Your task to perform on an android device: turn off data saver in the chrome app Image 0: 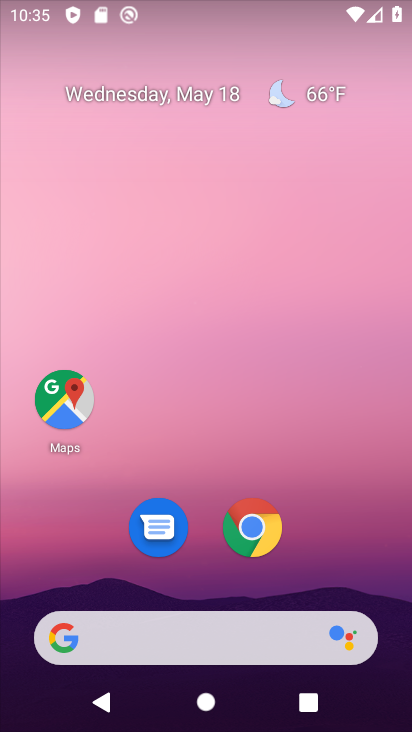
Step 0: drag from (343, 582) to (281, 262)
Your task to perform on an android device: turn off data saver in the chrome app Image 1: 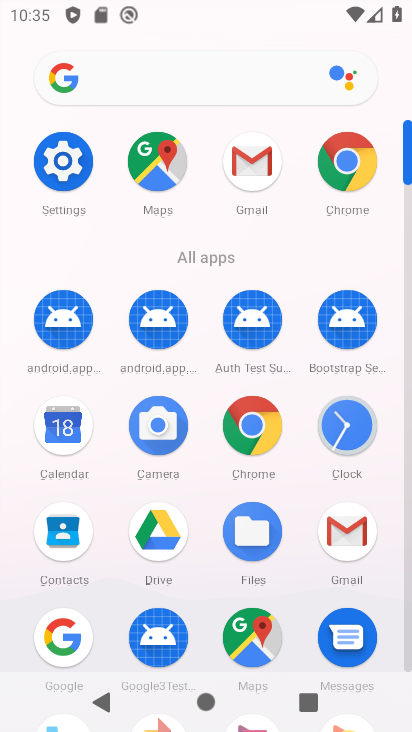
Step 1: click (365, 170)
Your task to perform on an android device: turn off data saver in the chrome app Image 2: 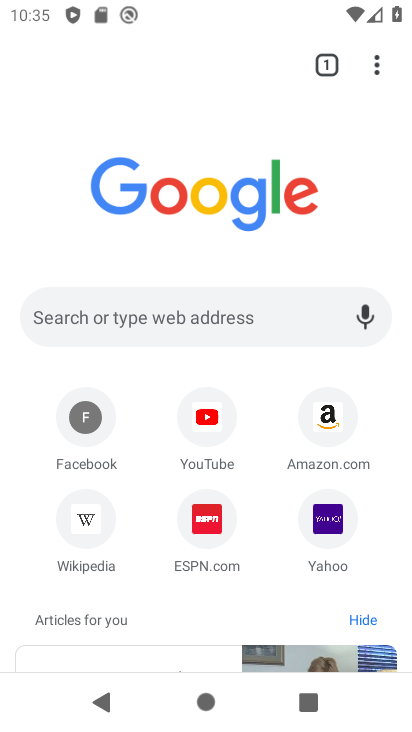
Step 2: click (377, 51)
Your task to perform on an android device: turn off data saver in the chrome app Image 3: 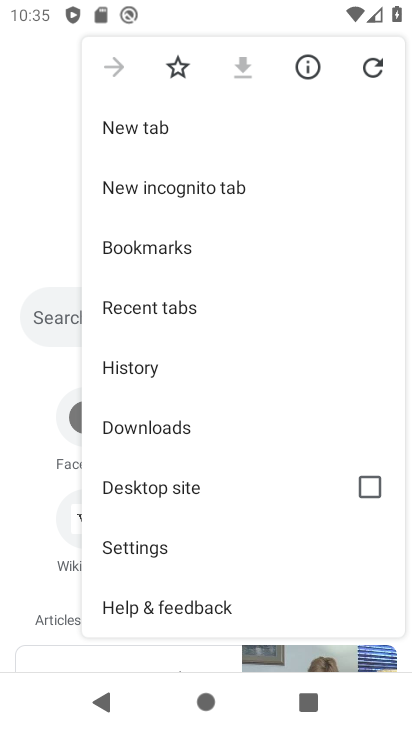
Step 3: click (265, 545)
Your task to perform on an android device: turn off data saver in the chrome app Image 4: 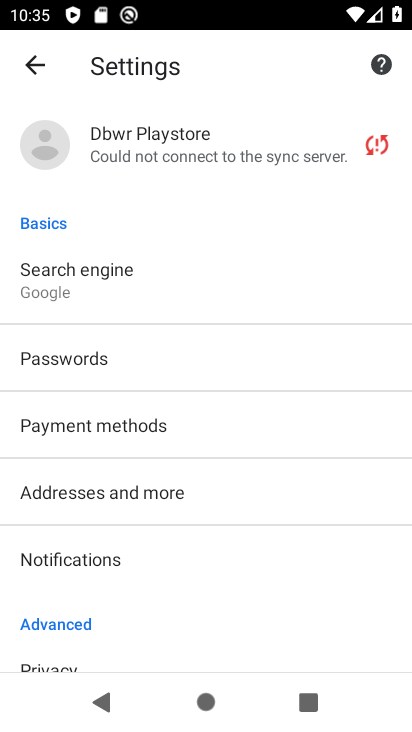
Step 4: drag from (268, 605) to (188, 278)
Your task to perform on an android device: turn off data saver in the chrome app Image 5: 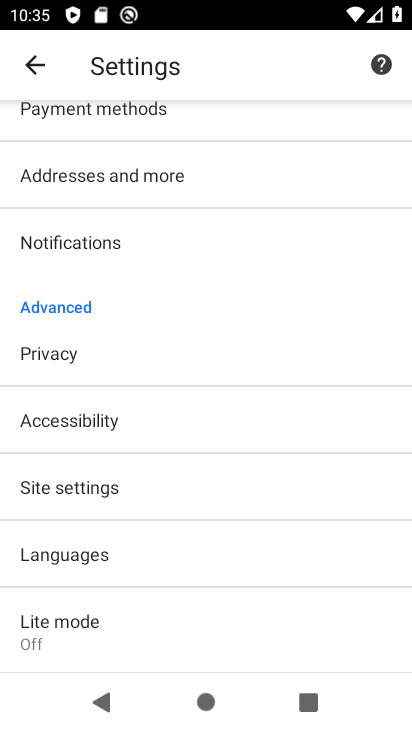
Step 5: click (244, 621)
Your task to perform on an android device: turn off data saver in the chrome app Image 6: 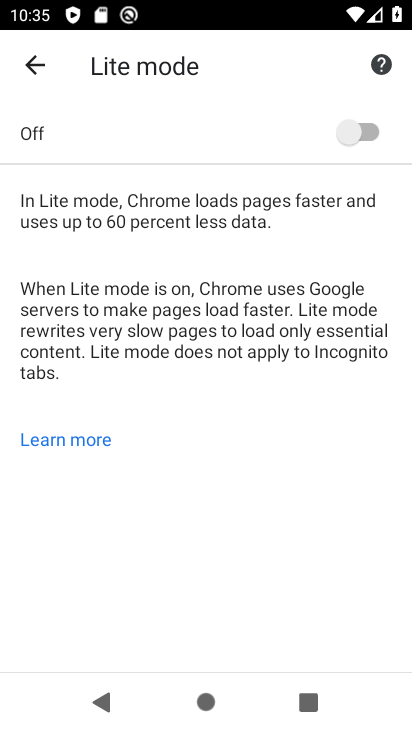
Step 6: task complete